Your task to perform on an android device: Open calendar and show me the first week of next month Image 0: 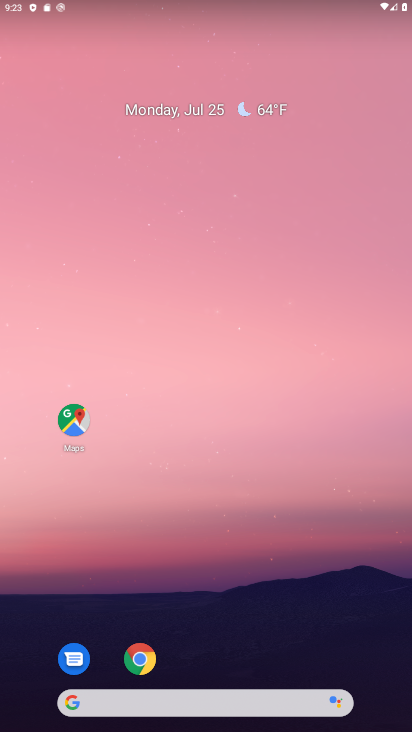
Step 0: press home button
Your task to perform on an android device: Open calendar and show me the first week of next month Image 1: 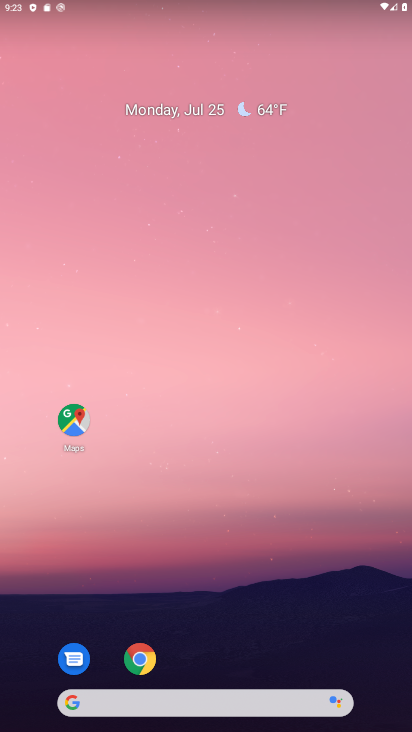
Step 1: drag from (333, 612) to (339, 199)
Your task to perform on an android device: Open calendar and show me the first week of next month Image 2: 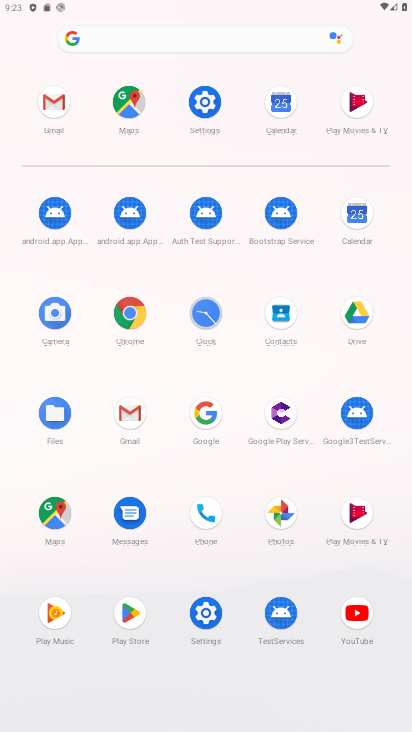
Step 2: click (354, 227)
Your task to perform on an android device: Open calendar and show me the first week of next month Image 3: 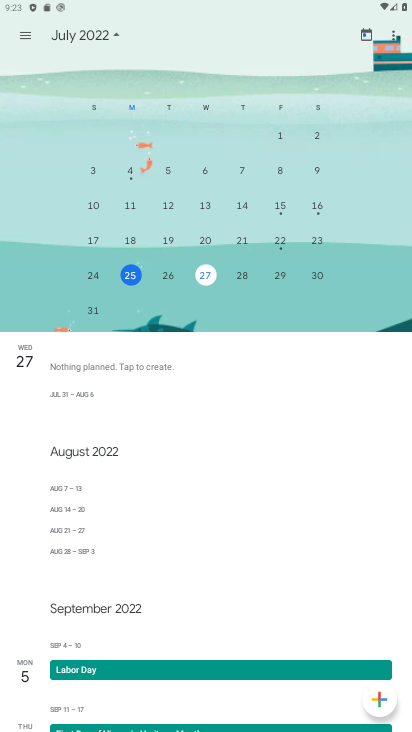
Step 3: drag from (352, 152) to (17, 130)
Your task to perform on an android device: Open calendar and show me the first week of next month Image 4: 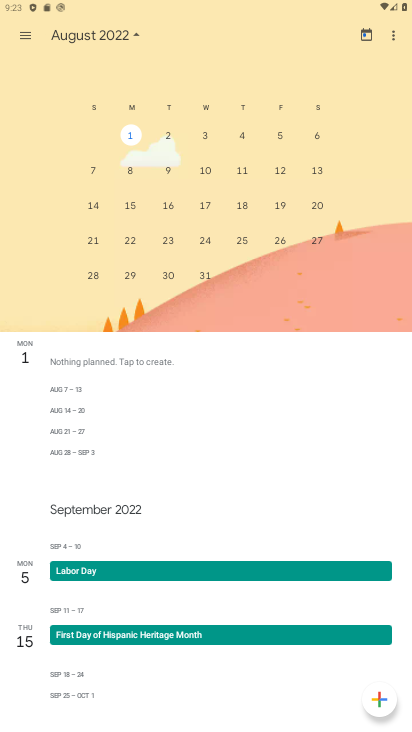
Step 4: click (124, 132)
Your task to perform on an android device: Open calendar and show me the first week of next month Image 5: 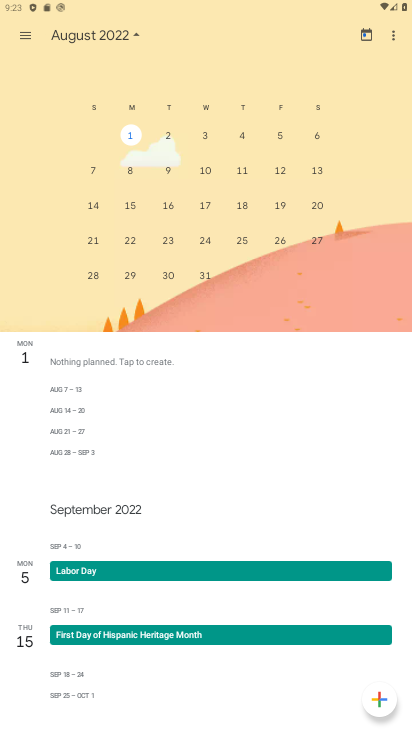
Step 5: task complete